Your task to perform on an android device: Turn off the flashlight Image 0: 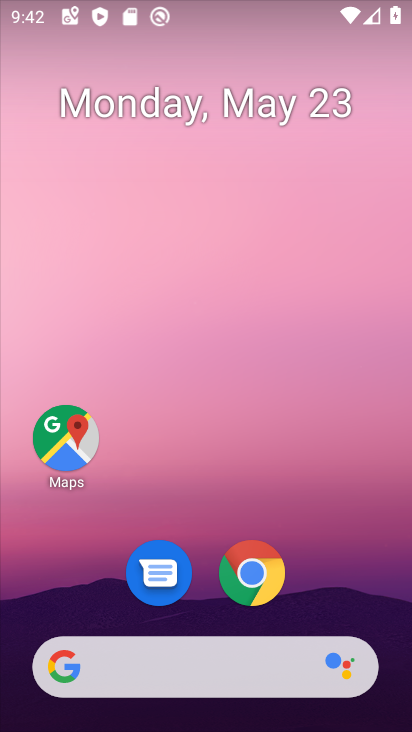
Step 0: drag from (240, 9) to (262, 257)
Your task to perform on an android device: Turn off the flashlight Image 1: 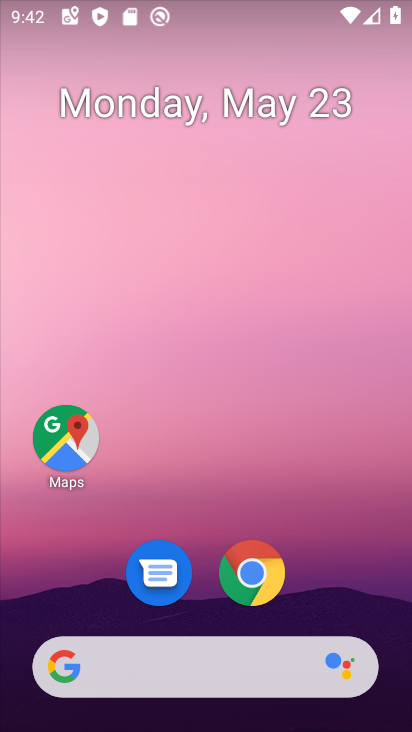
Step 1: drag from (244, 2) to (263, 334)
Your task to perform on an android device: Turn off the flashlight Image 2: 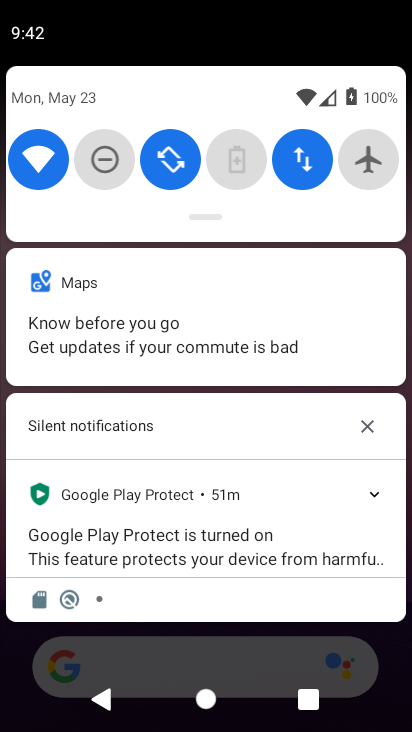
Step 2: drag from (203, 79) to (207, 317)
Your task to perform on an android device: Turn off the flashlight Image 3: 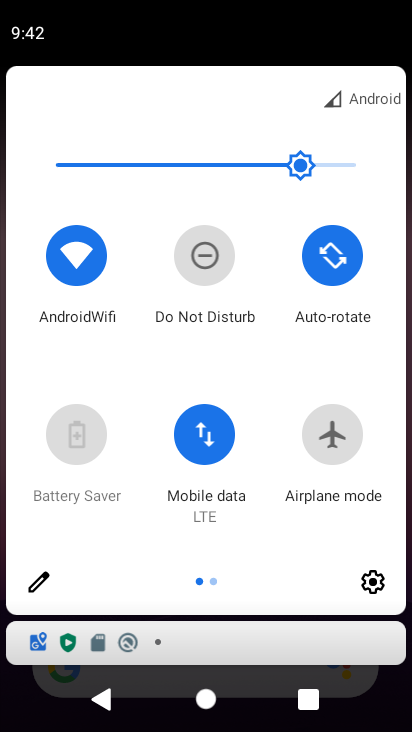
Step 3: click (45, 582)
Your task to perform on an android device: Turn off the flashlight Image 4: 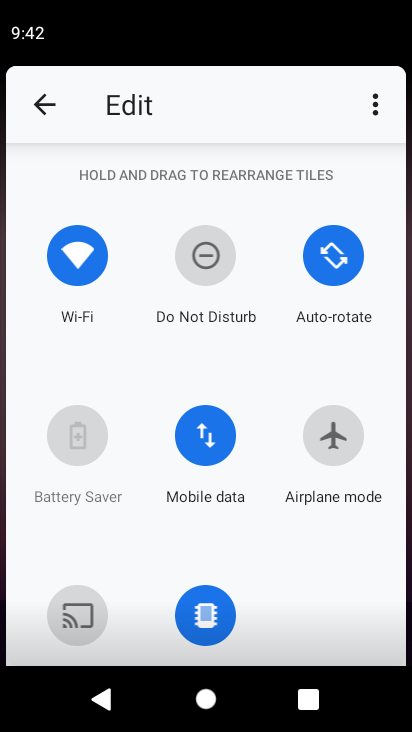
Step 4: task complete